Your task to perform on an android device: Open Yahoo.com Image 0: 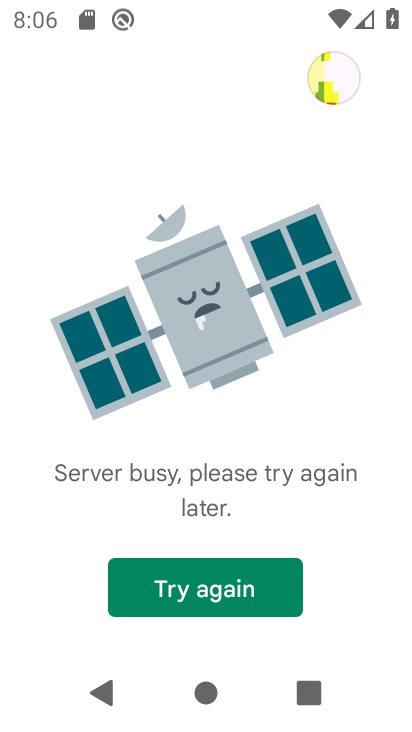
Step 0: press home button
Your task to perform on an android device: Open Yahoo.com Image 1: 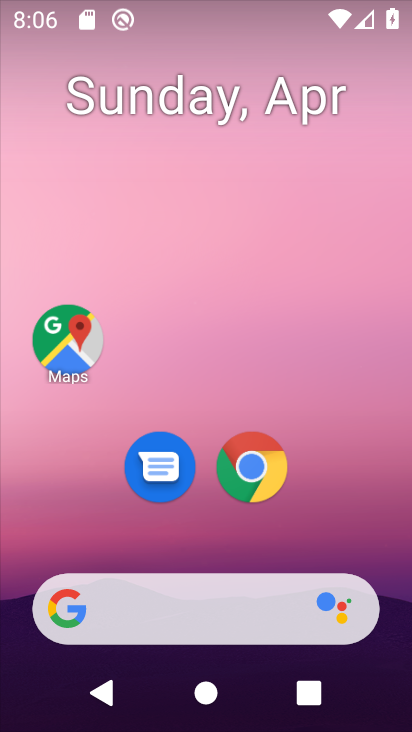
Step 1: click (250, 464)
Your task to perform on an android device: Open Yahoo.com Image 2: 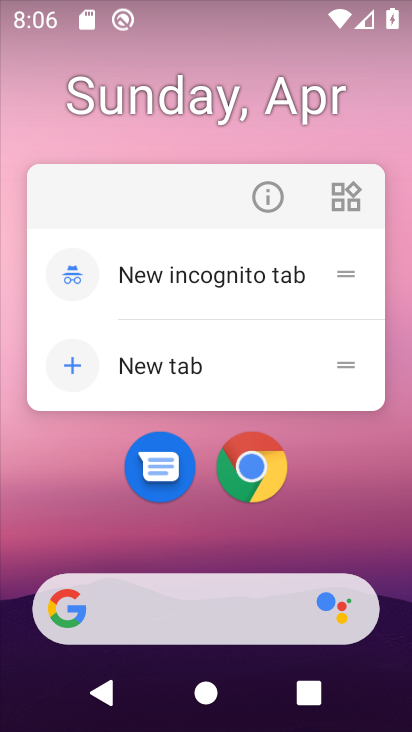
Step 2: click (245, 451)
Your task to perform on an android device: Open Yahoo.com Image 3: 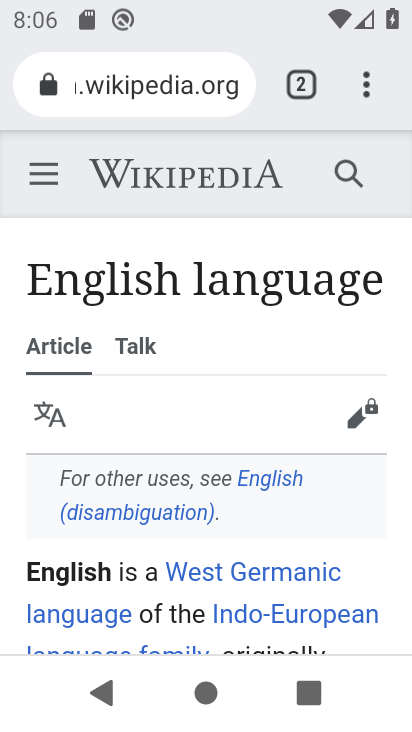
Step 3: click (213, 83)
Your task to perform on an android device: Open Yahoo.com Image 4: 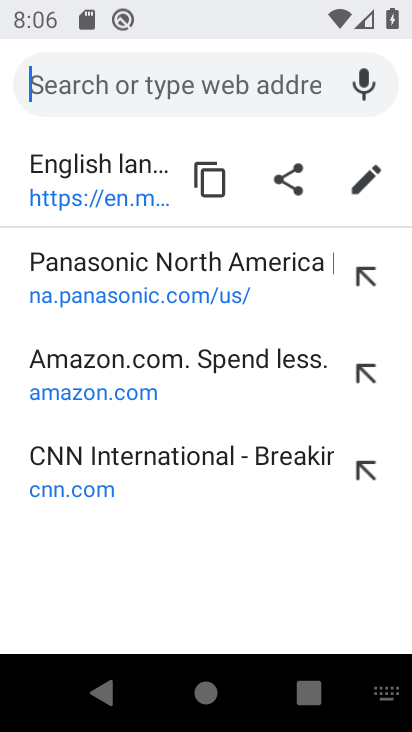
Step 4: type "yahoo.com"
Your task to perform on an android device: Open Yahoo.com Image 5: 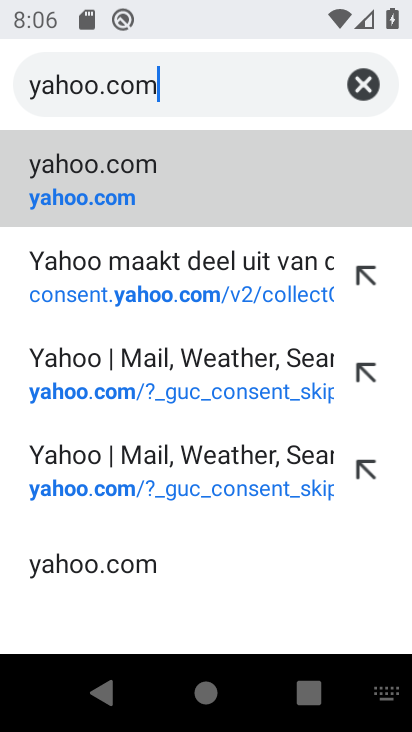
Step 5: click (40, 181)
Your task to perform on an android device: Open Yahoo.com Image 6: 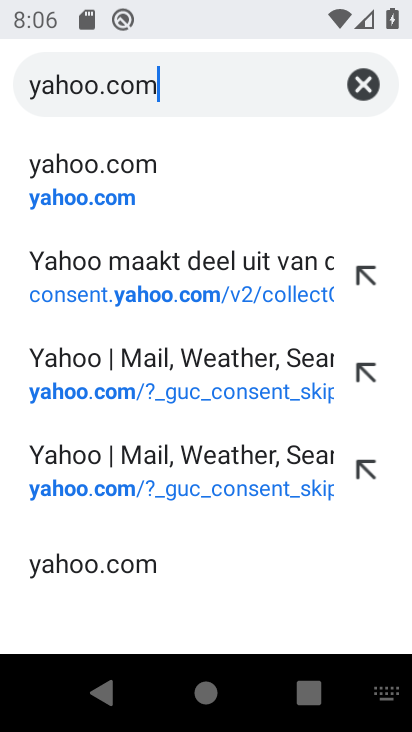
Step 6: click (41, 180)
Your task to perform on an android device: Open Yahoo.com Image 7: 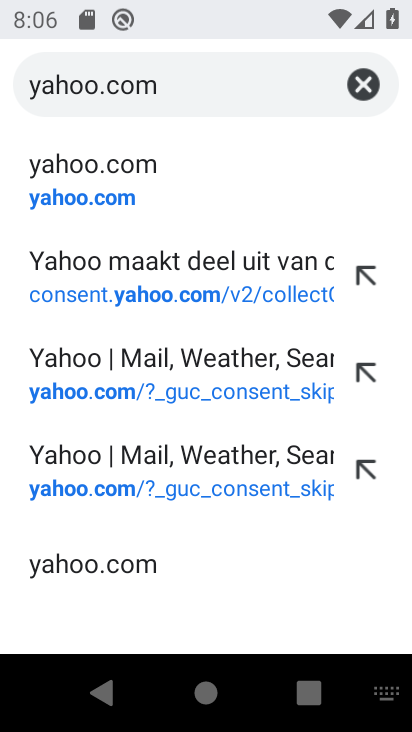
Step 7: click (41, 180)
Your task to perform on an android device: Open Yahoo.com Image 8: 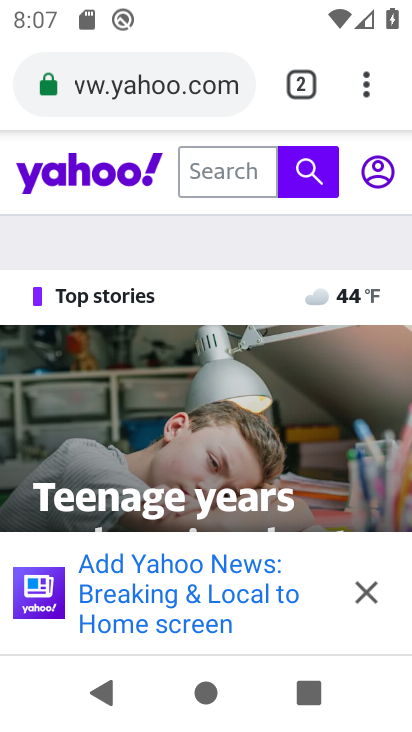
Step 8: task complete